Your task to perform on an android device: When is my next appointment? Image 0: 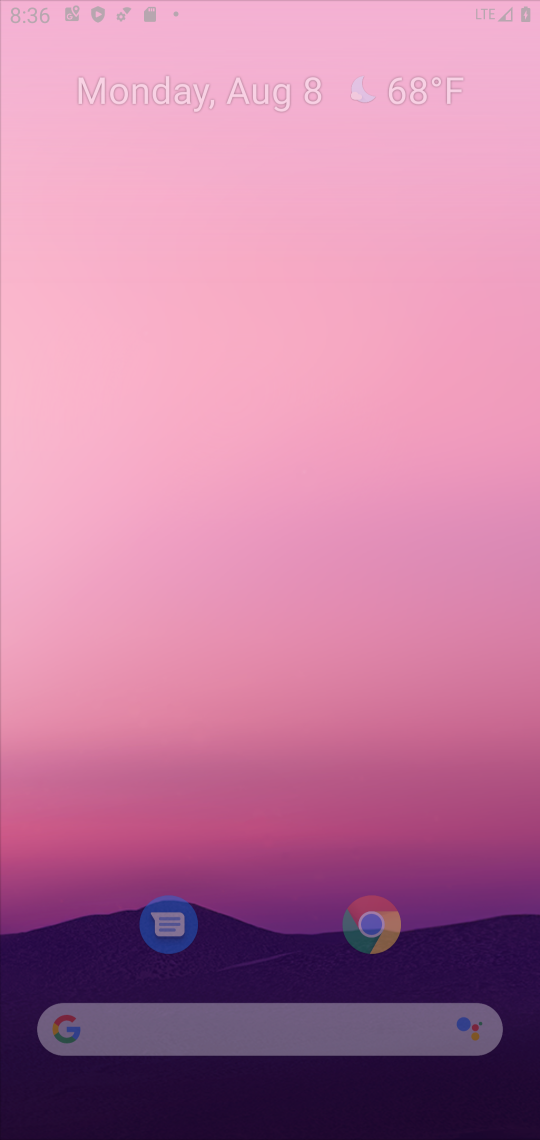
Step 0: press home button
Your task to perform on an android device: When is my next appointment? Image 1: 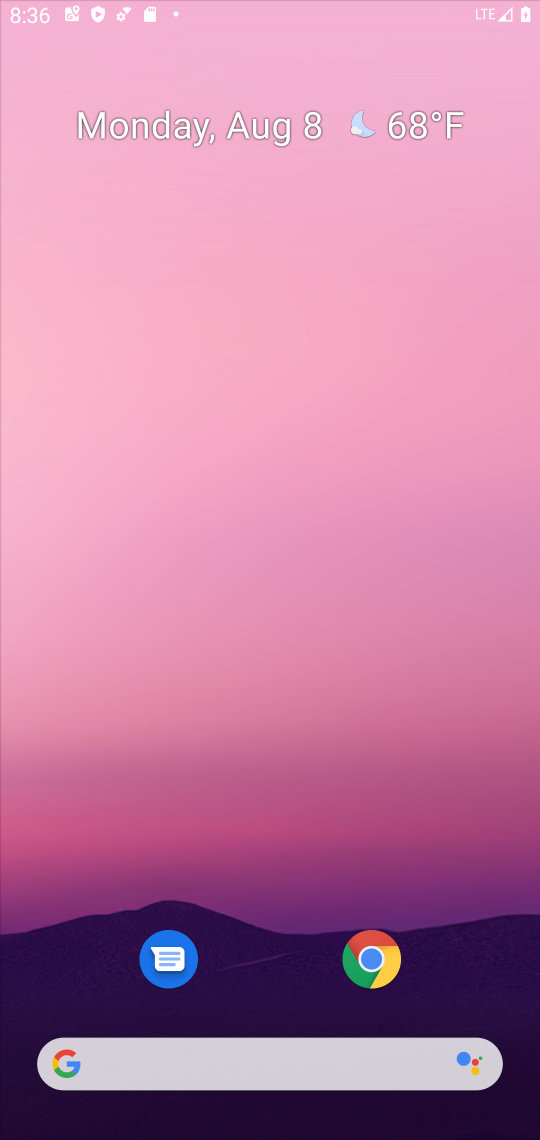
Step 1: drag from (473, 950) to (454, 824)
Your task to perform on an android device: When is my next appointment? Image 2: 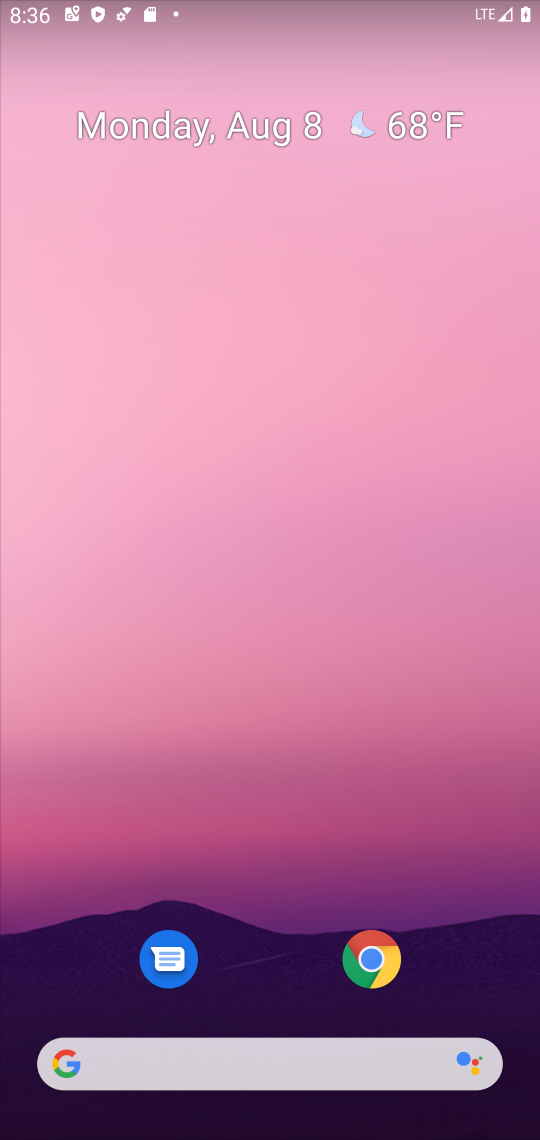
Step 2: press home button
Your task to perform on an android device: When is my next appointment? Image 3: 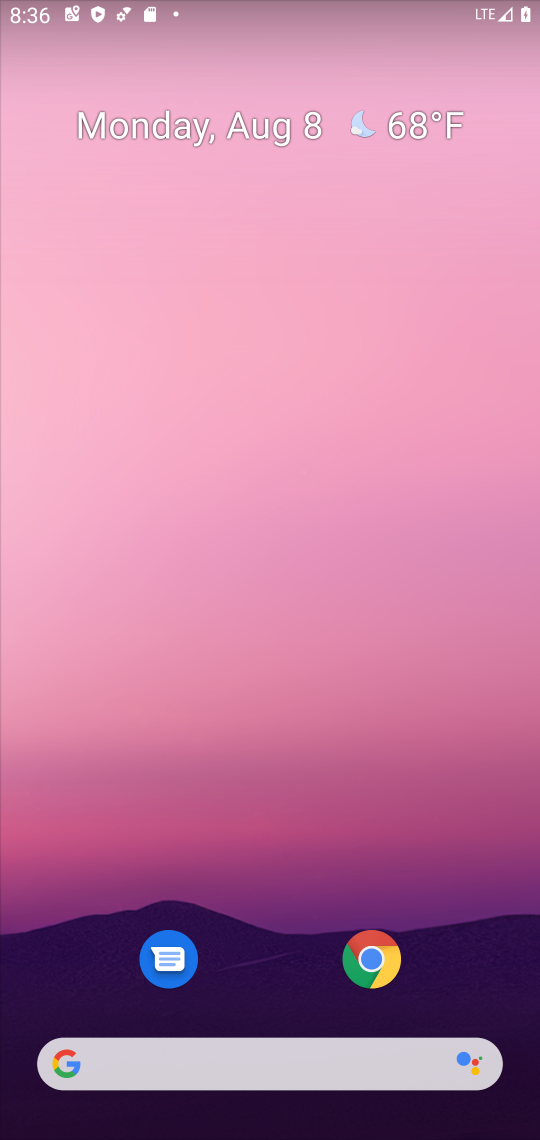
Step 3: drag from (487, 1006) to (283, 2)
Your task to perform on an android device: When is my next appointment? Image 4: 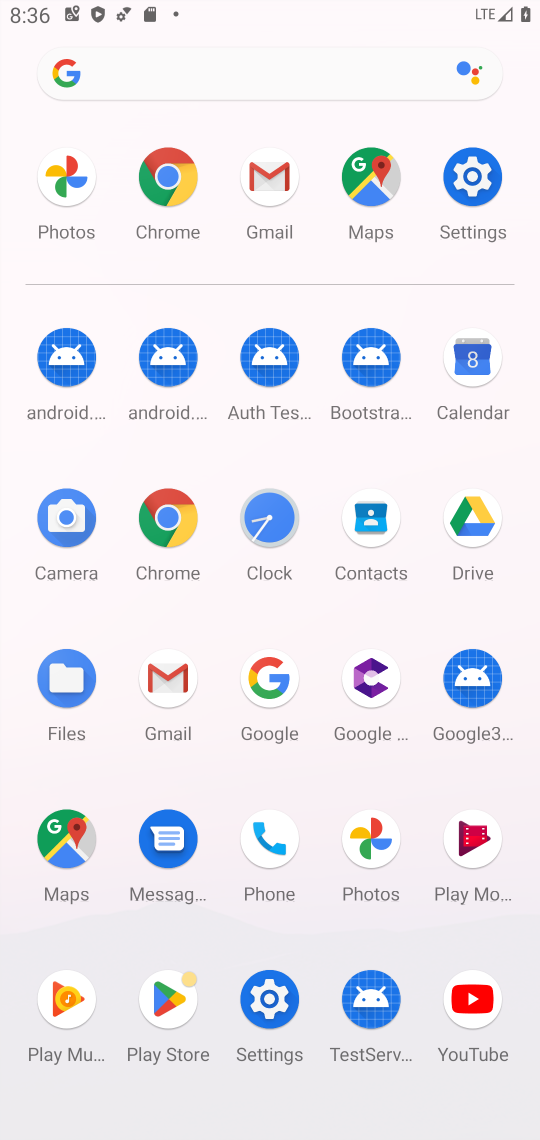
Step 4: click (479, 364)
Your task to perform on an android device: When is my next appointment? Image 5: 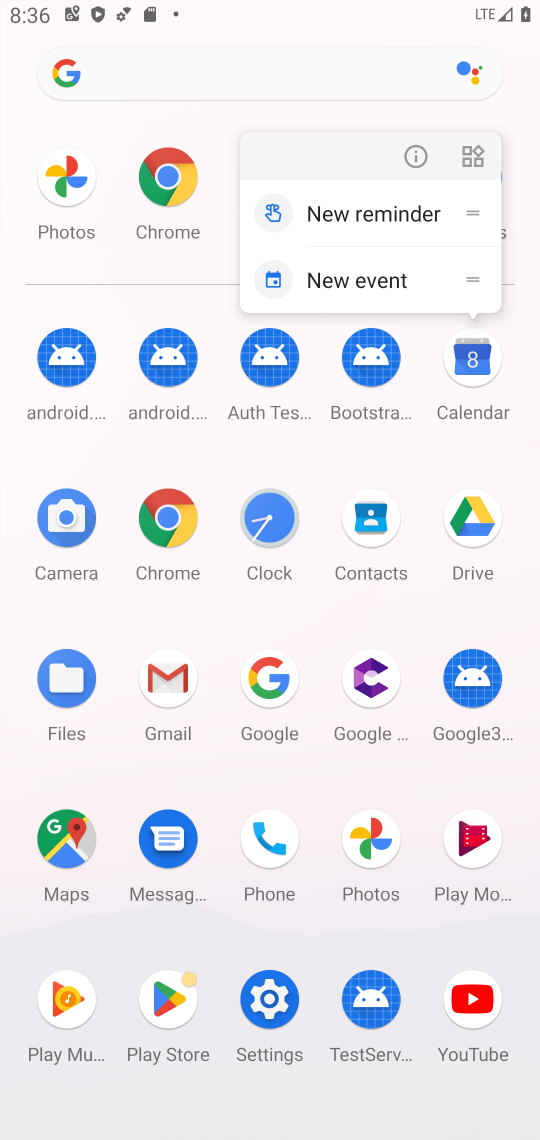
Step 5: click (479, 364)
Your task to perform on an android device: When is my next appointment? Image 6: 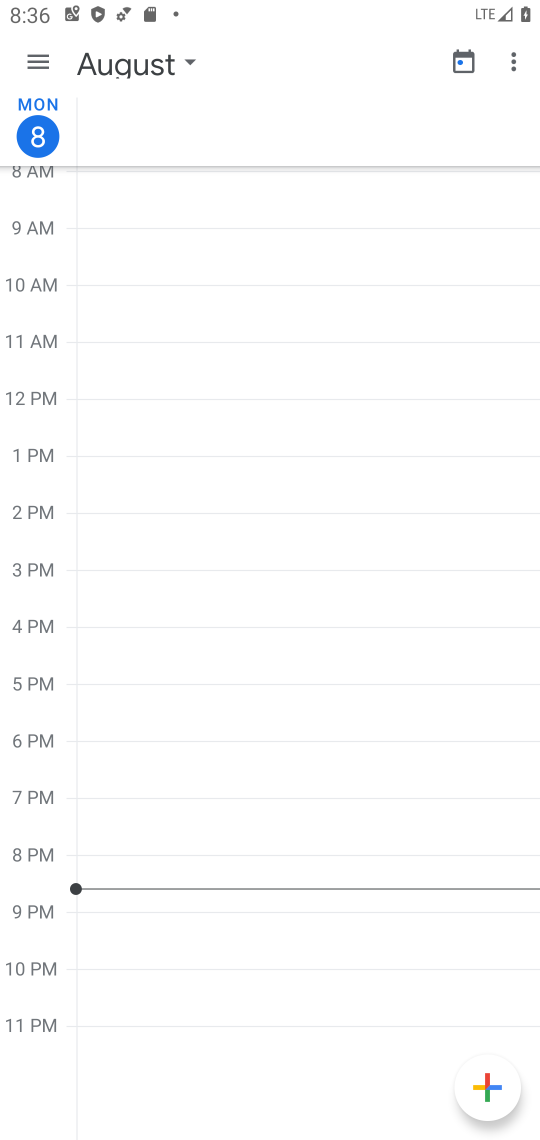
Step 6: task complete